Your task to perform on an android device: Open Chrome and go to settings Image 0: 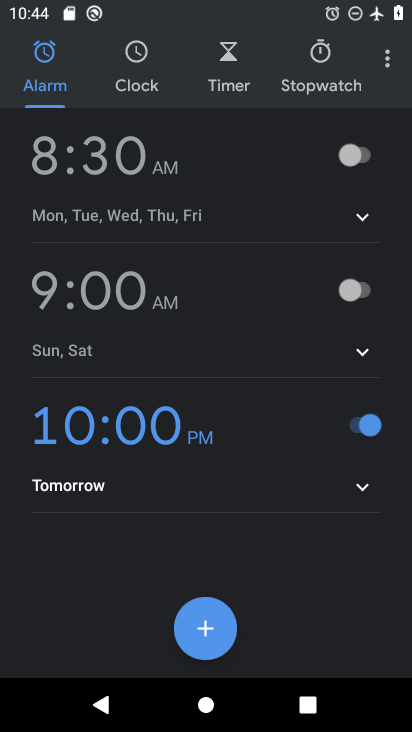
Step 0: press home button
Your task to perform on an android device: Open Chrome and go to settings Image 1: 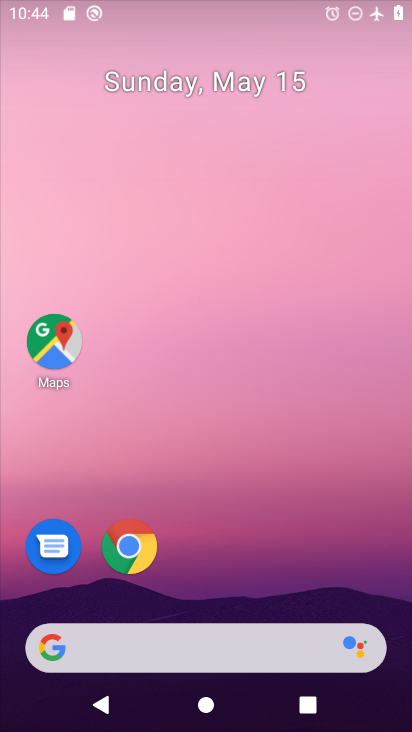
Step 1: drag from (305, 724) to (399, 378)
Your task to perform on an android device: Open Chrome and go to settings Image 2: 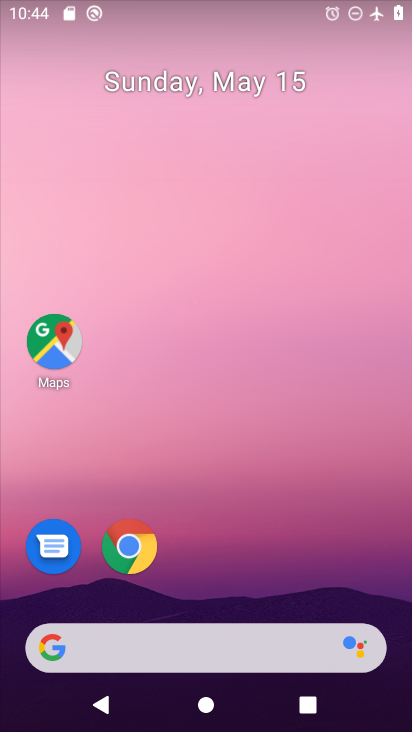
Step 2: click (129, 557)
Your task to perform on an android device: Open Chrome and go to settings Image 3: 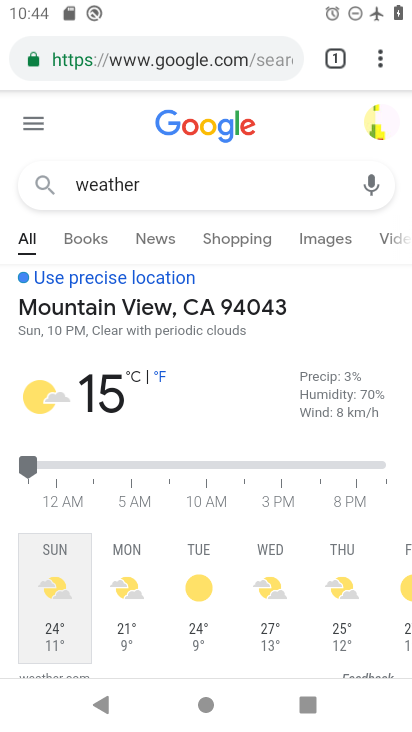
Step 3: click (391, 62)
Your task to perform on an android device: Open Chrome and go to settings Image 4: 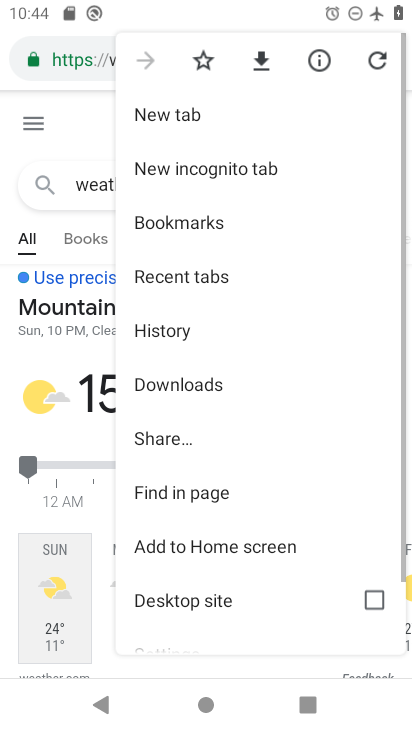
Step 4: drag from (300, 504) to (388, 106)
Your task to perform on an android device: Open Chrome and go to settings Image 5: 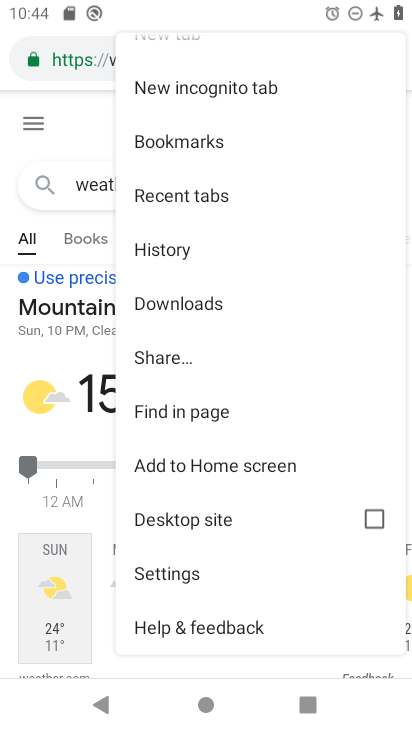
Step 5: click (166, 576)
Your task to perform on an android device: Open Chrome and go to settings Image 6: 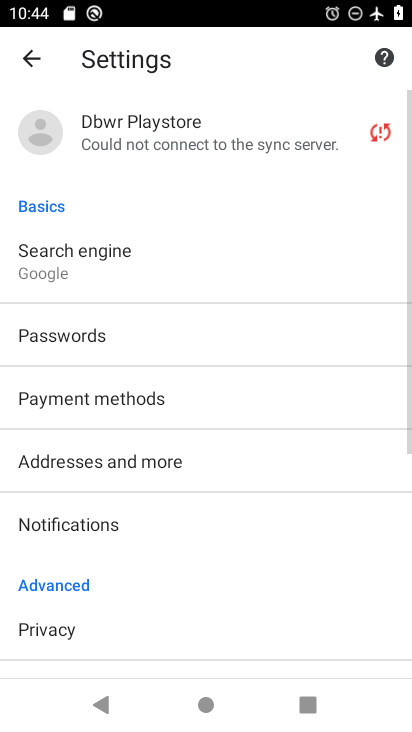
Step 6: task complete